Your task to perform on an android device: toggle priority inbox in the gmail app Image 0: 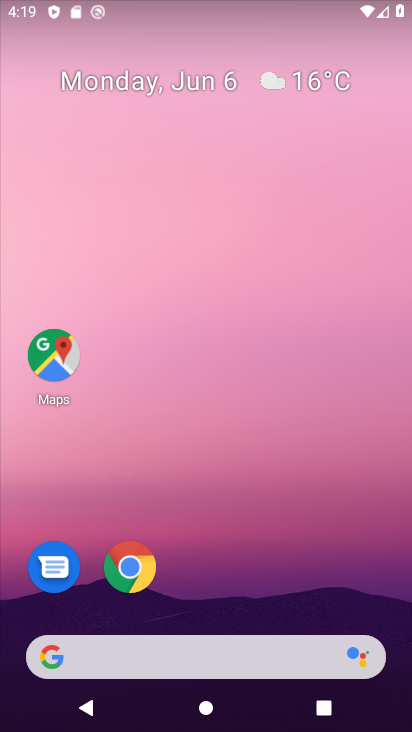
Step 0: drag from (192, 611) to (267, 236)
Your task to perform on an android device: toggle priority inbox in the gmail app Image 1: 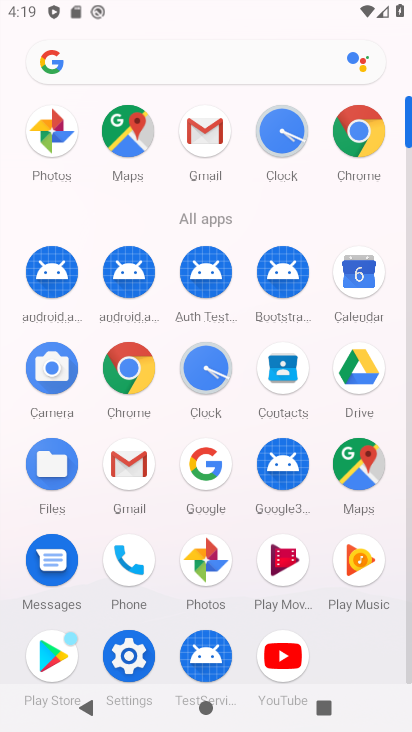
Step 1: click (135, 468)
Your task to perform on an android device: toggle priority inbox in the gmail app Image 2: 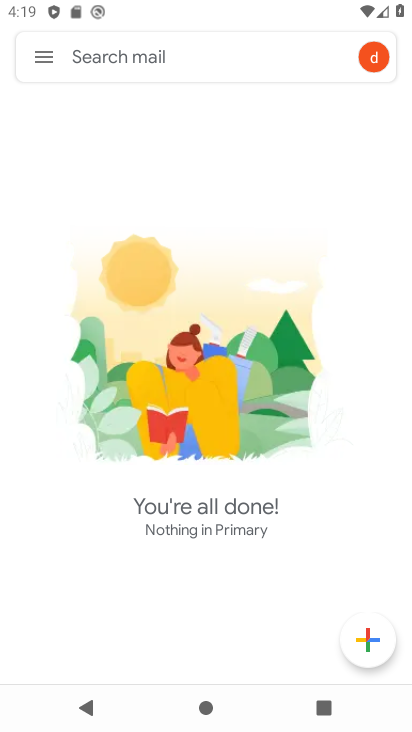
Step 2: click (55, 56)
Your task to perform on an android device: toggle priority inbox in the gmail app Image 3: 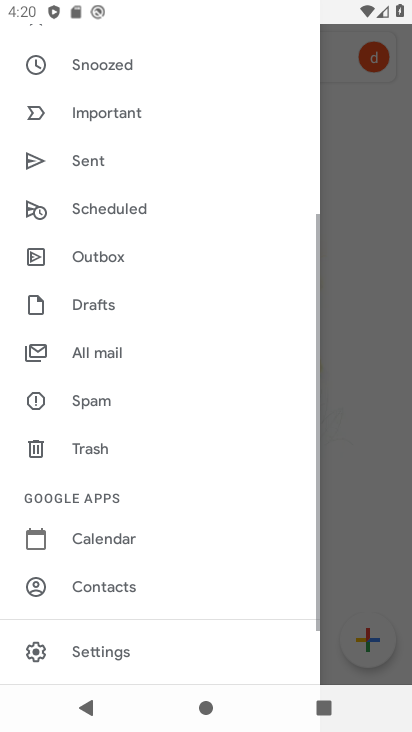
Step 3: drag from (110, 427) to (211, 162)
Your task to perform on an android device: toggle priority inbox in the gmail app Image 4: 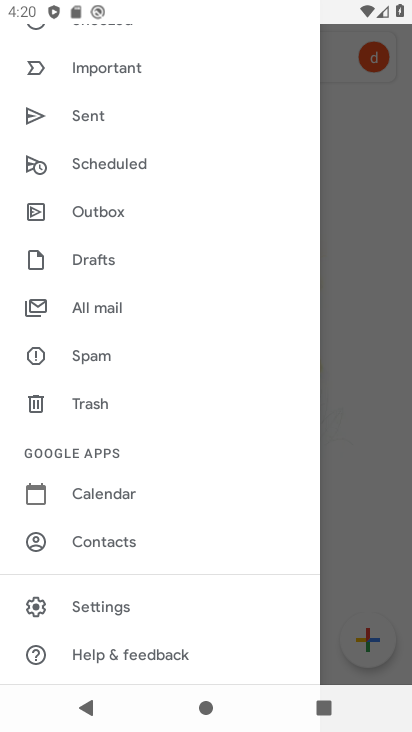
Step 4: click (162, 618)
Your task to perform on an android device: toggle priority inbox in the gmail app Image 5: 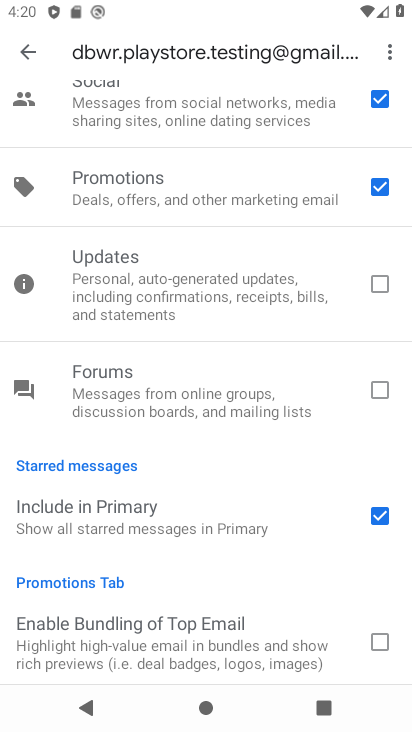
Step 5: drag from (159, 531) to (253, 258)
Your task to perform on an android device: toggle priority inbox in the gmail app Image 6: 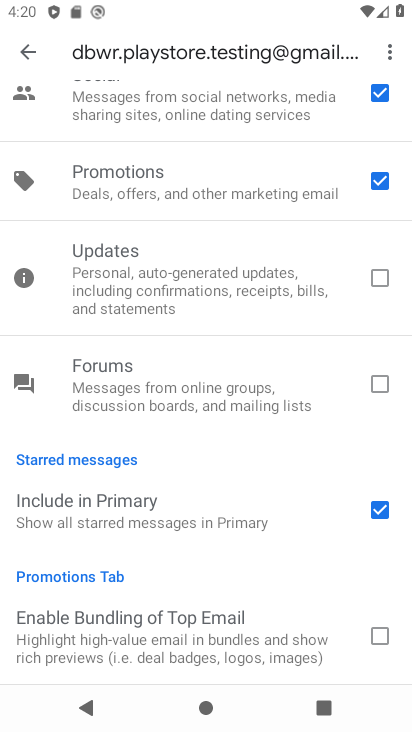
Step 6: click (36, 56)
Your task to perform on an android device: toggle priority inbox in the gmail app Image 7: 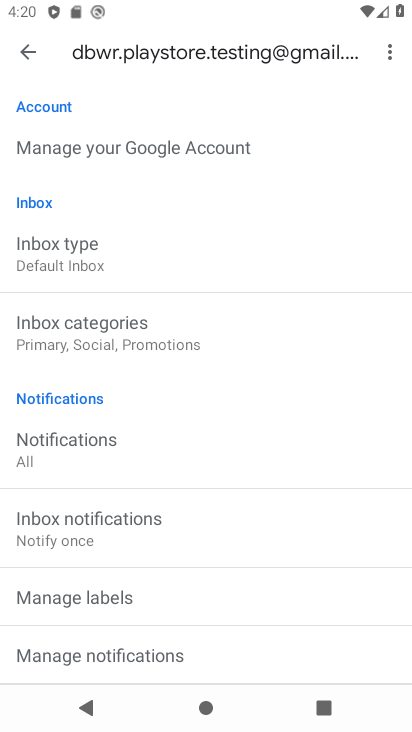
Step 7: click (147, 285)
Your task to perform on an android device: toggle priority inbox in the gmail app Image 8: 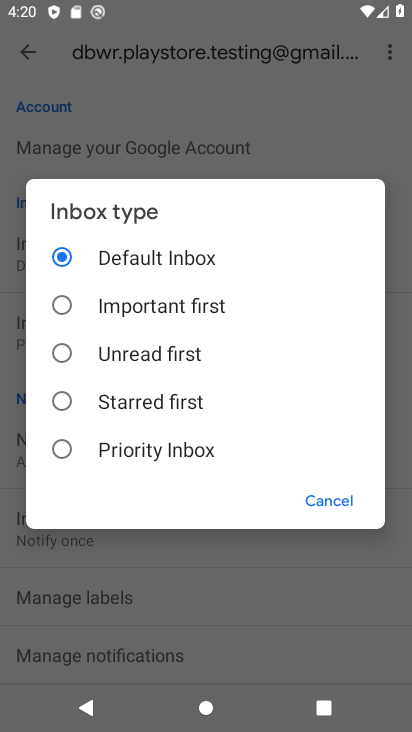
Step 8: click (161, 450)
Your task to perform on an android device: toggle priority inbox in the gmail app Image 9: 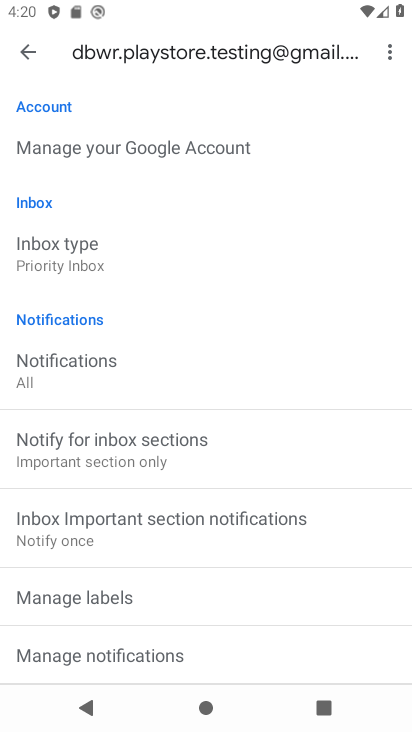
Step 9: task complete